Your task to perform on an android device: Open calendar and show me the third week of next month Image 0: 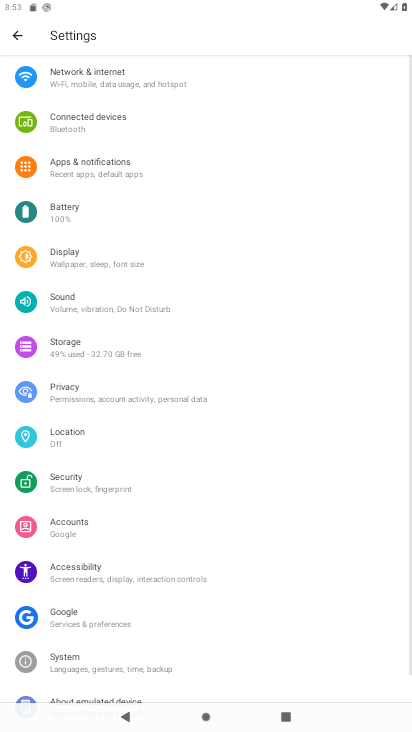
Step 0: press home button
Your task to perform on an android device: Open calendar and show me the third week of next month Image 1: 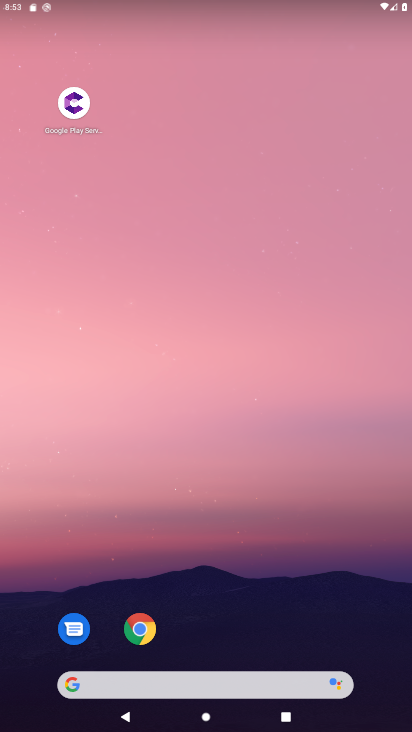
Step 1: drag from (187, 663) to (88, 105)
Your task to perform on an android device: Open calendar and show me the third week of next month Image 2: 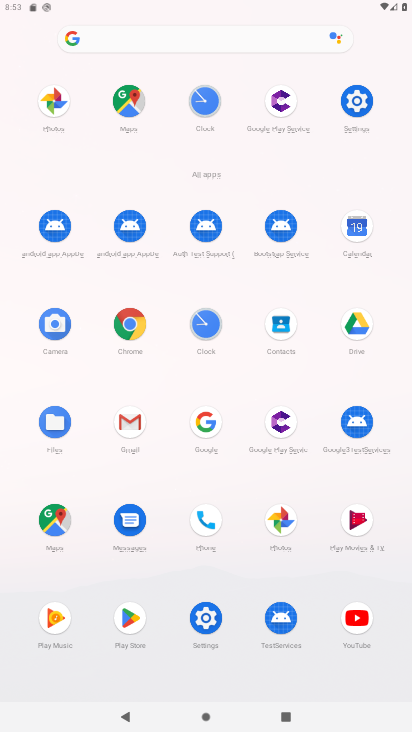
Step 2: click (360, 237)
Your task to perform on an android device: Open calendar and show me the third week of next month Image 3: 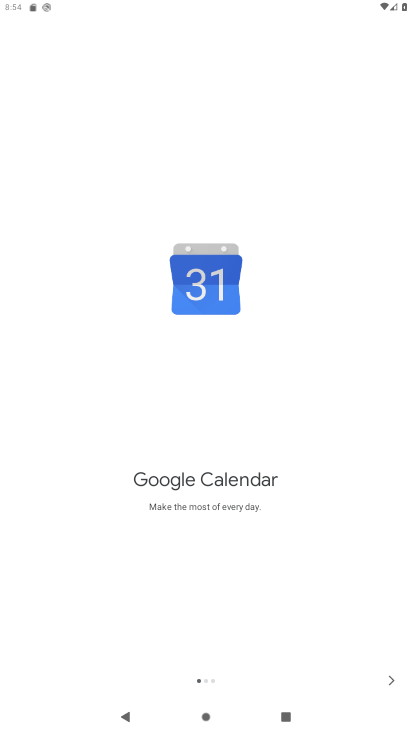
Step 3: click (391, 679)
Your task to perform on an android device: Open calendar and show me the third week of next month Image 4: 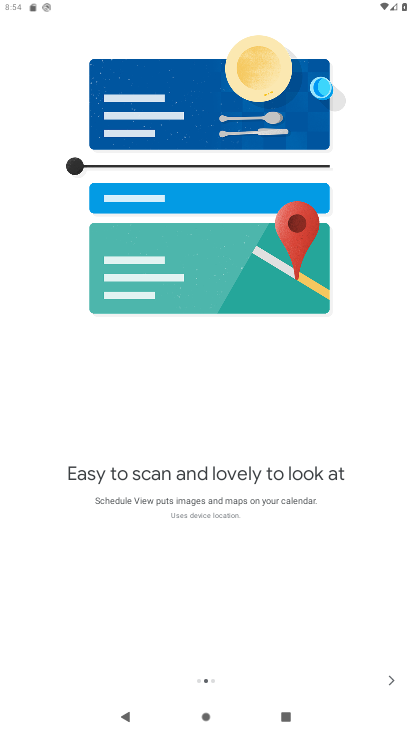
Step 4: click (391, 679)
Your task to perform on an android device: Open calendar and show me the third week of next month Image 5: 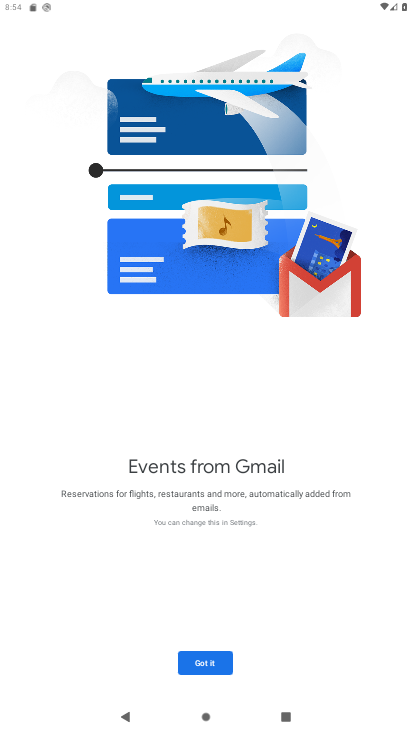
Step 5: click (391, 679)
Your task to perform on an android device: Open calendar and show me the third week of next month Image 6: 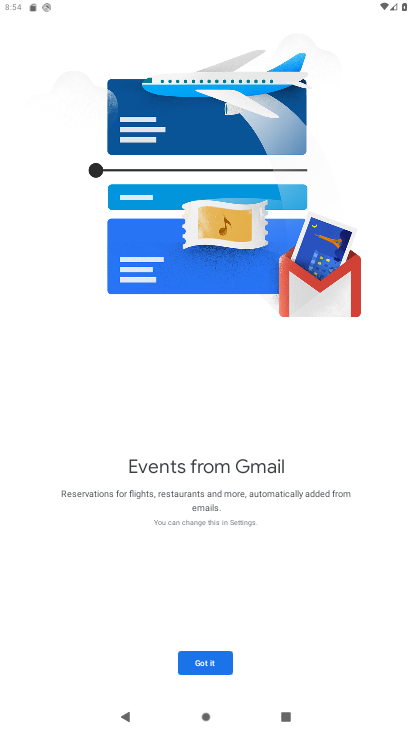
Step 6: click (199, 657)
Your task to perform on an android device: Open calendar and show me the third week of next month Image 7: 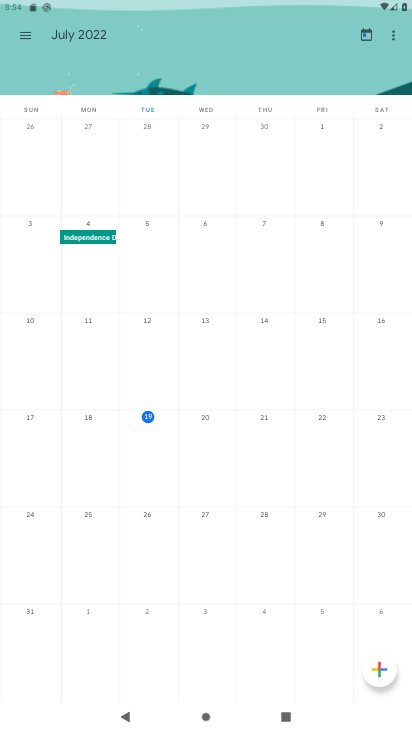
Step 7: click (0, 38)
Your task to perform on an android device: Open calendar and show me the third week of next month Image 8: 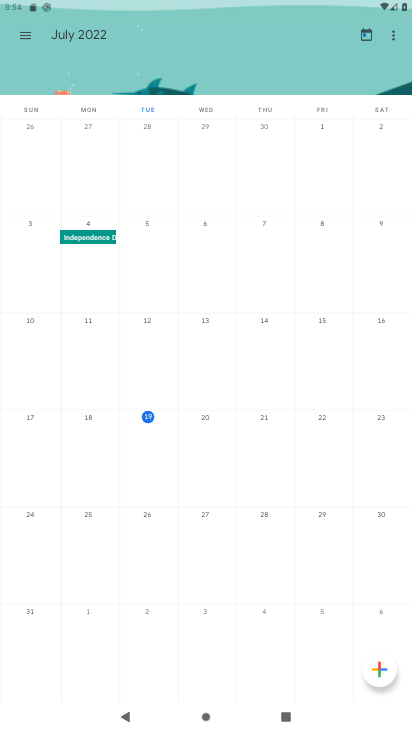
Step 8: click (17, 34)
Your task to perform on an android device: Open calendar and show me the third week of next month Image 9: 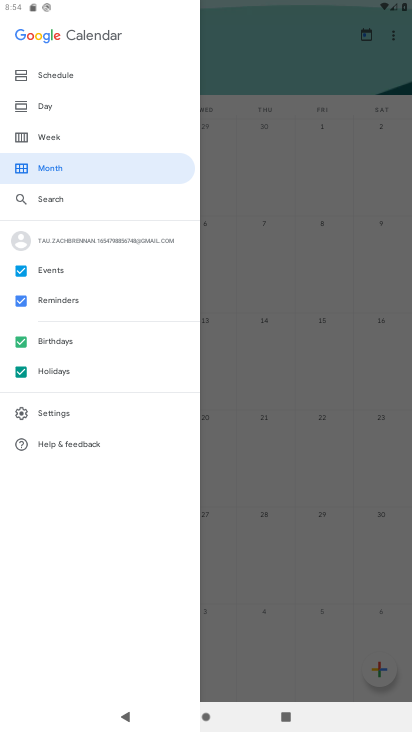
Step 9: click (48, 133)
Your task to perform on an android device: Open calendar and show me the third week of next month Image 10: 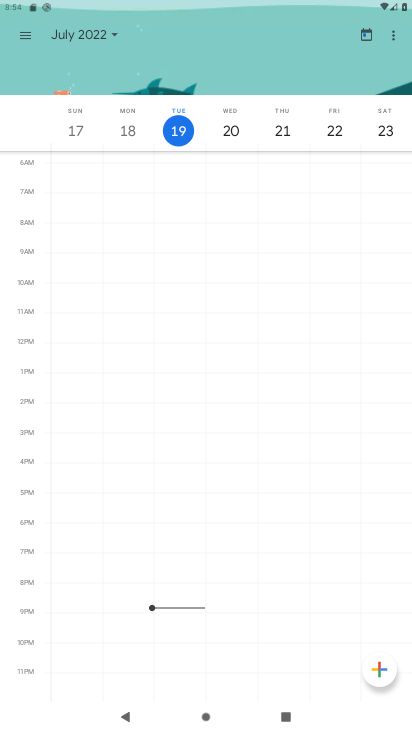
Step 10: task complete